Your task to perform on an android device: Open Chrome and go to settings Image 0: 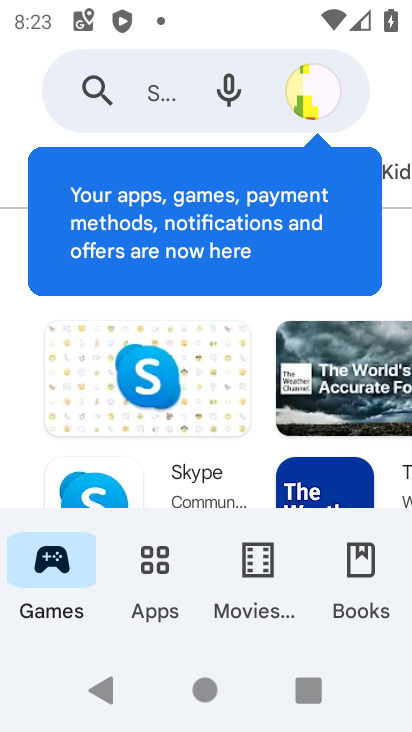
Step 0: press home button
Your task to perform on an android device: Open Chrome and go to settings Image 1: 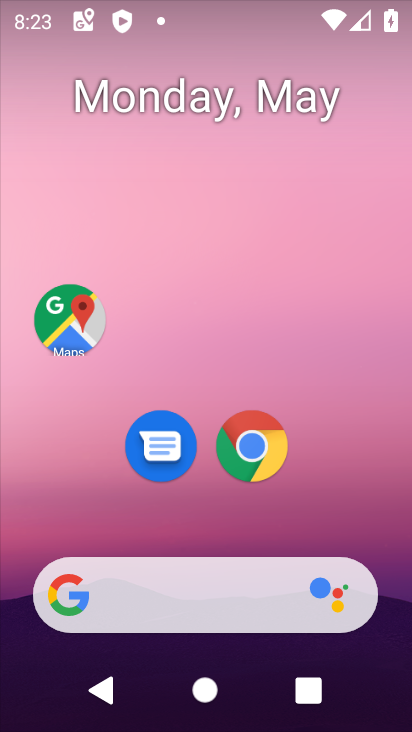
Step 1: click (245, 441)
Your task to perform on an android device: Open Chrome and go to settings Image 2: 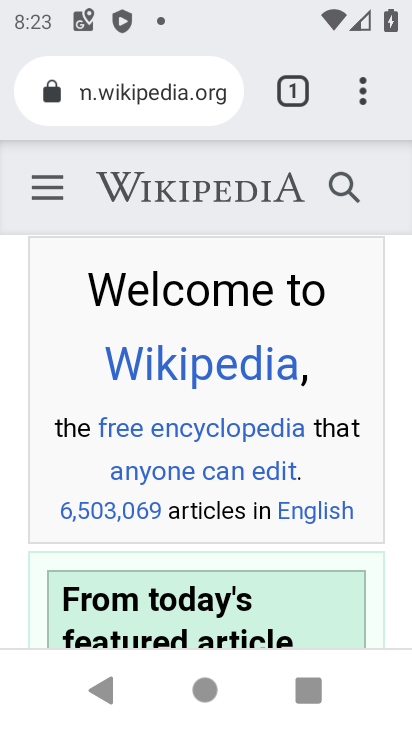
Step 2: drag from (355, 571) to (324, 63)
Your task to perform on an android device: Open Chrome and go to settings Image 3: 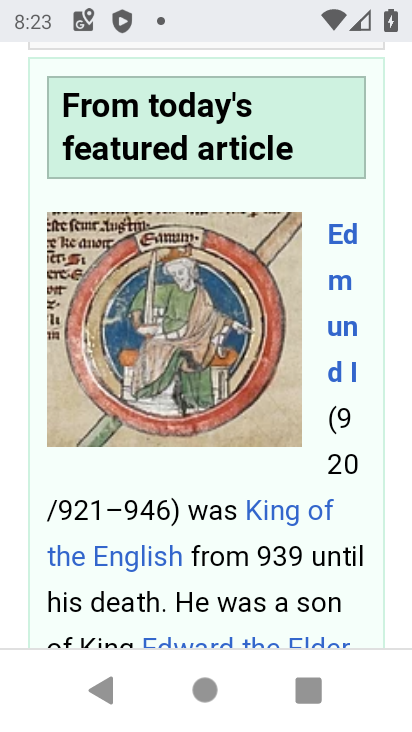
Step 3: drag from (302, 499) to (295, 541)
Your task to perform on an android device: Open Chrome and go to settings Image 4: 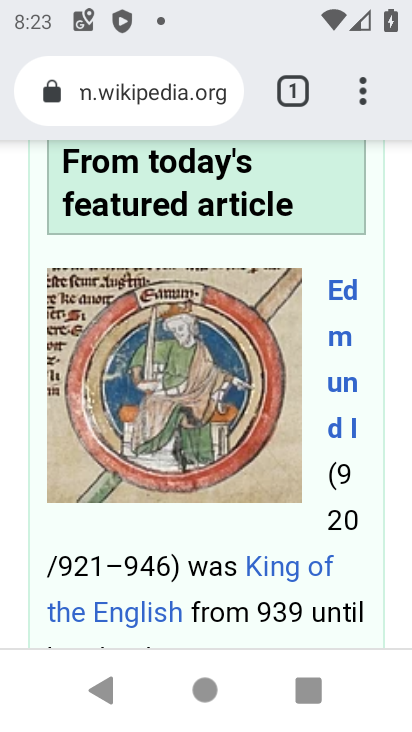
Step 4: click (363, 108)
Your task to perform on an android device: Open Chrome and go to settings Image 5: 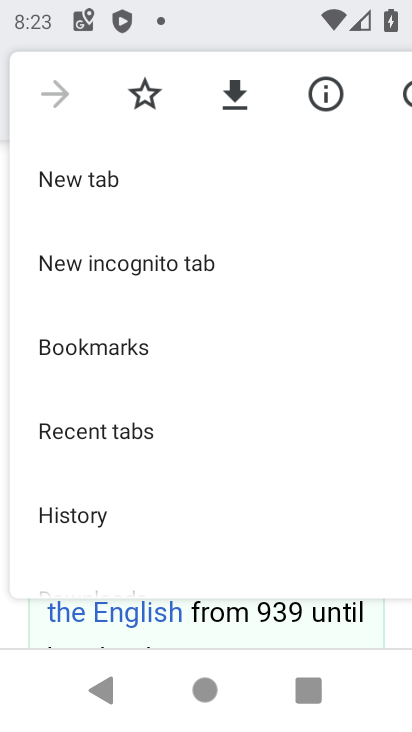
Step 5: drag from (314, 438) to (271, 91)
Your task to perform on an android device: Open Chrome and go to settings Image 6: 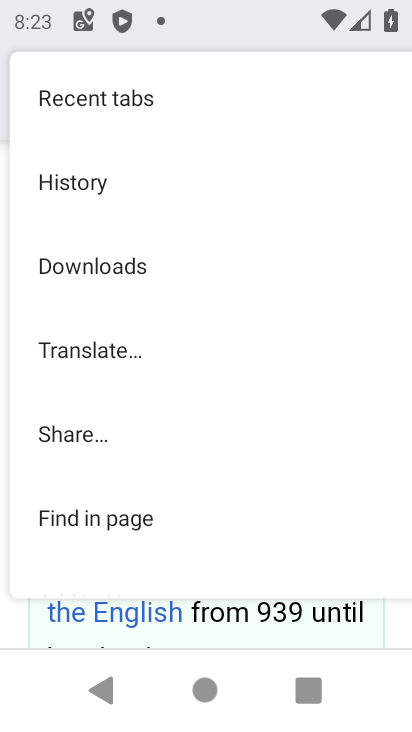
Step 6: drag from (239, 467) to (201, 33)
Your task to perform on an android device: Open Chrome and go to settings Image 7: 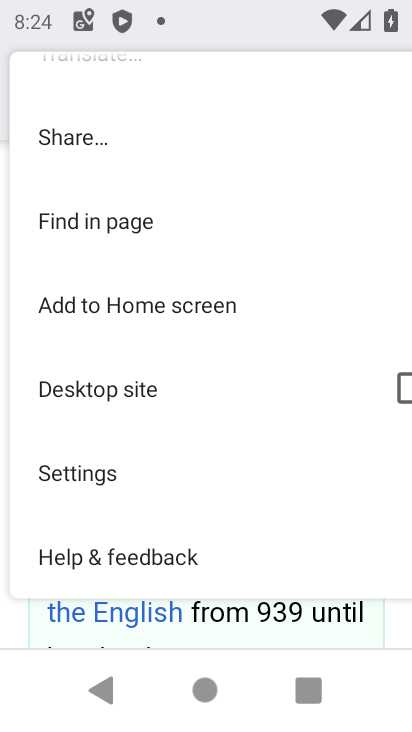
Step 7: click (121, 464)
Your task to perform on an android device: Open Chrome and go to settings Image 8: 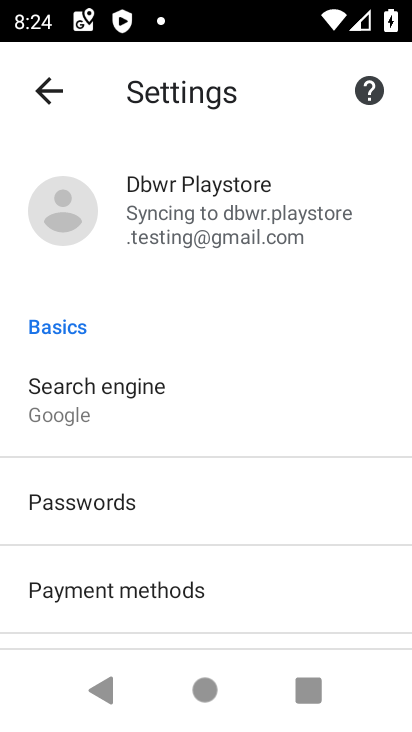
Step 8: task complete